Your task to perform on an android device: Go to Amazon Image 0: 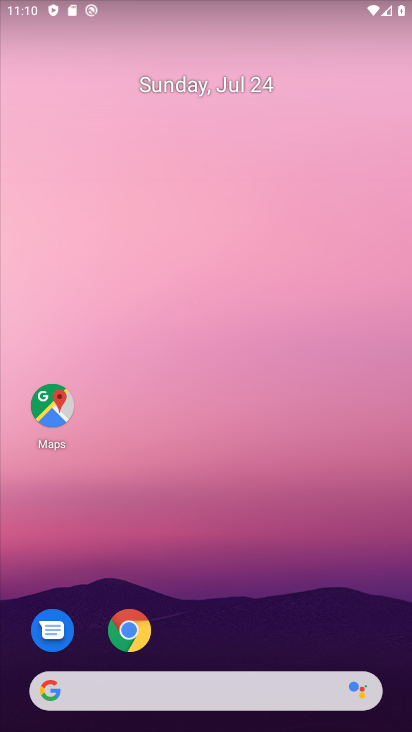
Step 0: click (131, 631)
Your task to perform on an android device: Go to Amazon Image 1: 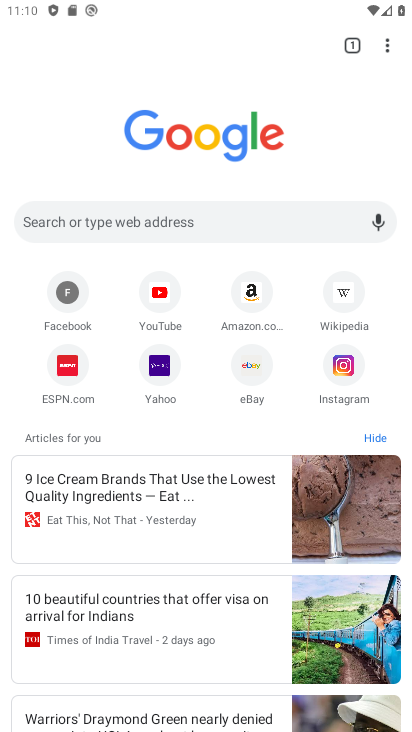
Step 1: click (207, 206)
Your task to perform on an android device: Go to Amazon Image 2: 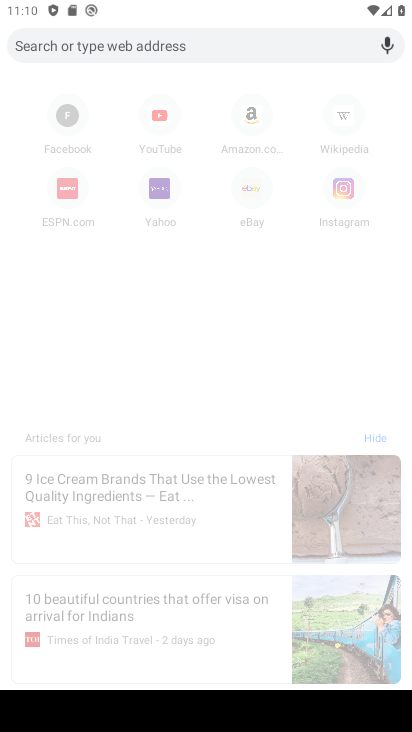
Step 2: type "www.amazon.com"
Your task to perform on an android device: Go to Amazon Image 3: 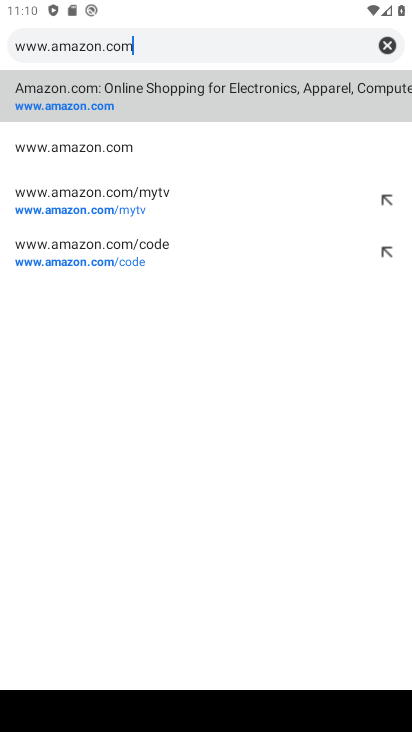
Step 3: click (42, 105)
Your task to perform on an android device: Go to Amazon Image 4: 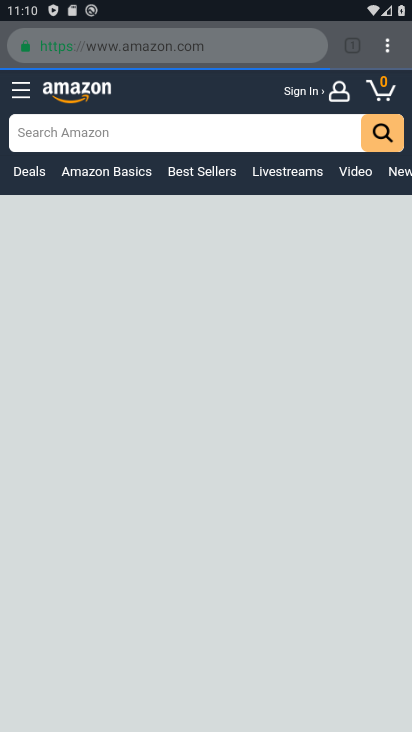
Step 4: task complete